Your task to perform on an android device: delete a single message in the gmail app Image 0: 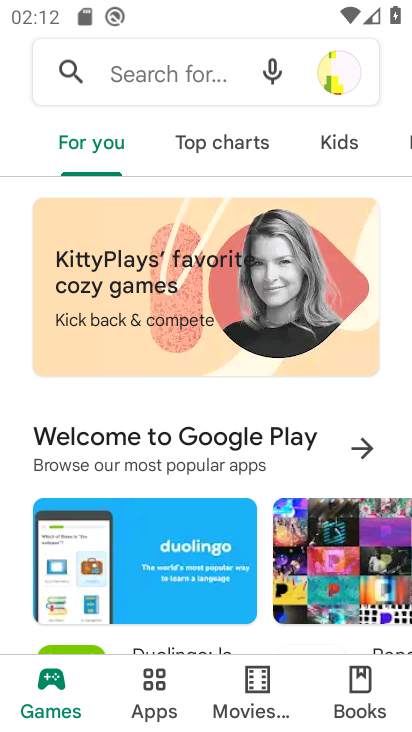
Step 0: press home button
Your task to perform on an android device: delete a single message in the gmail app Image 1: 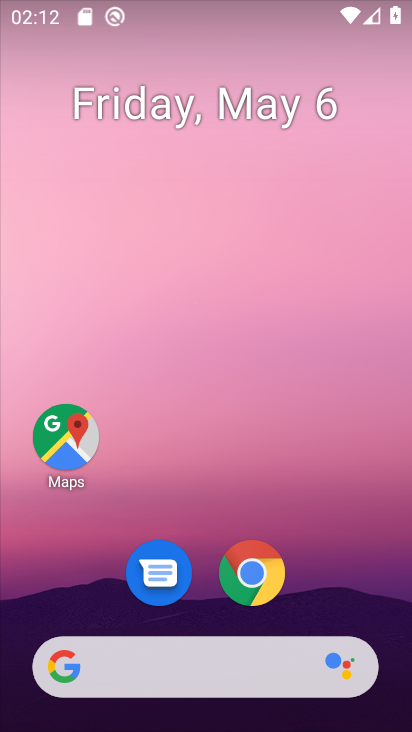
Step 1: drag from (323, 603) to (350, 217)
Your task to perform on an android device: delete a single message in the gmail app Image 2: 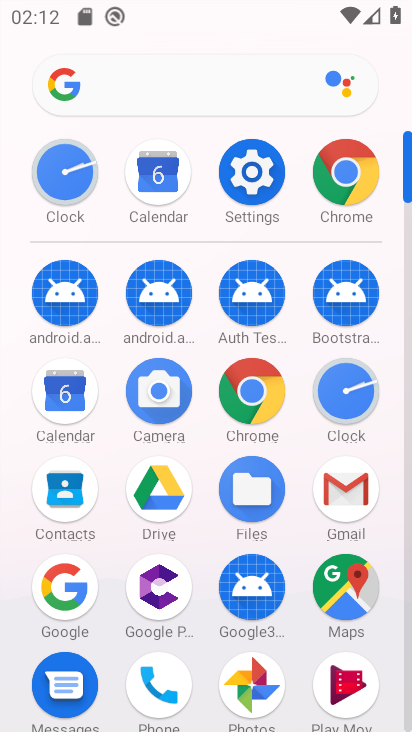
Step 2: click (334, 485)
Your task to perform on an android device: delete a single message in the gmail app Image 3: 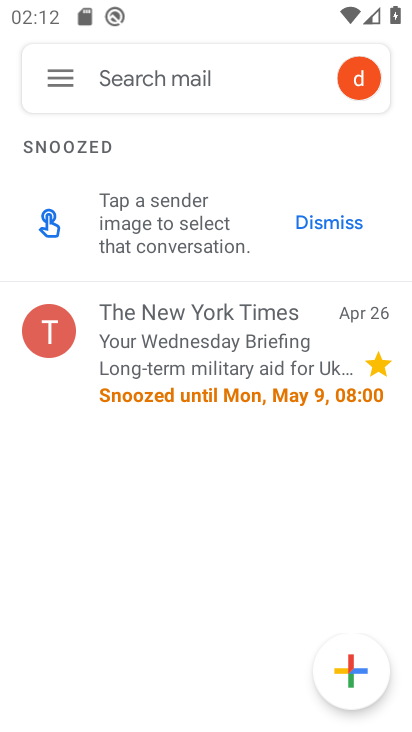
Step 3: click (50, 80)
Your task to perform on an android device: delete a single message in the gmail app Image 4: 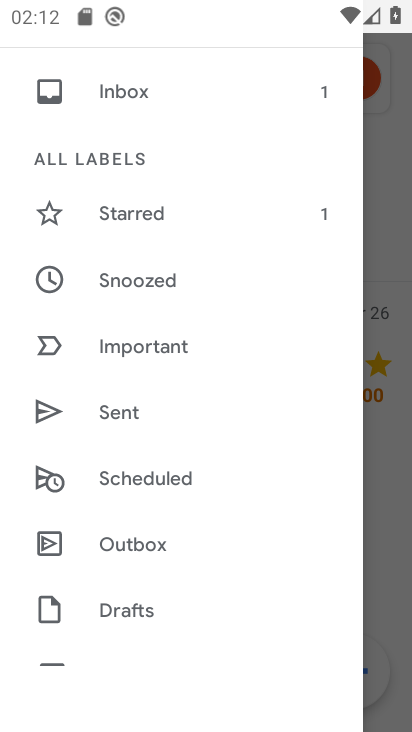
Step 4: drag from (158, 400) to (208, 154)
Your task to perform on an android device: delete a single message in the gmail app Image 5: 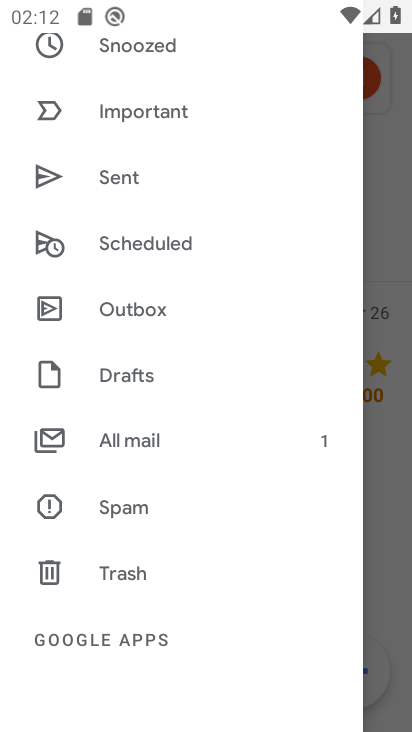
Step 5: click (136, 445)
Your task to perform on an android device: delete a single message in the gmail app Image 6: 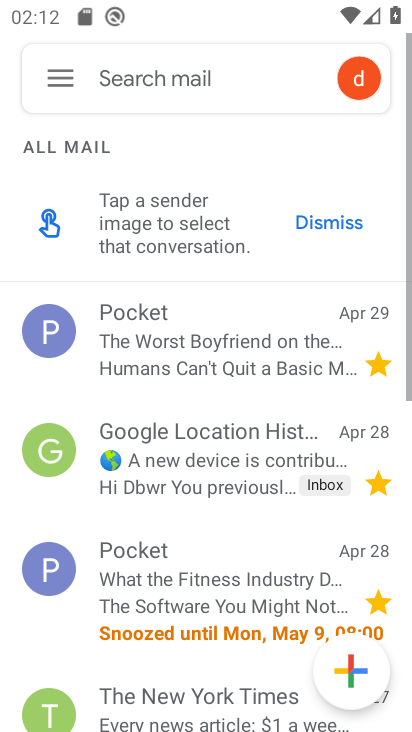
Step 6: click (126, 353)
Your task to perform on an android device: delete a single message in the gmail app Image 7: 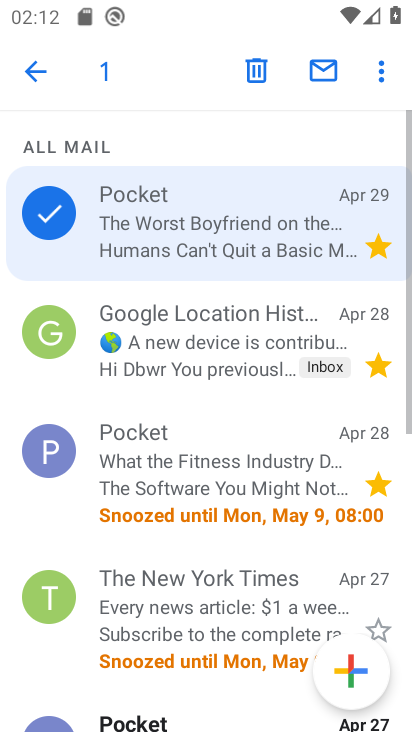
Step 7: click (265, 75)
Your task to perform on an android device: delete a single message in the gmail app Image 8: 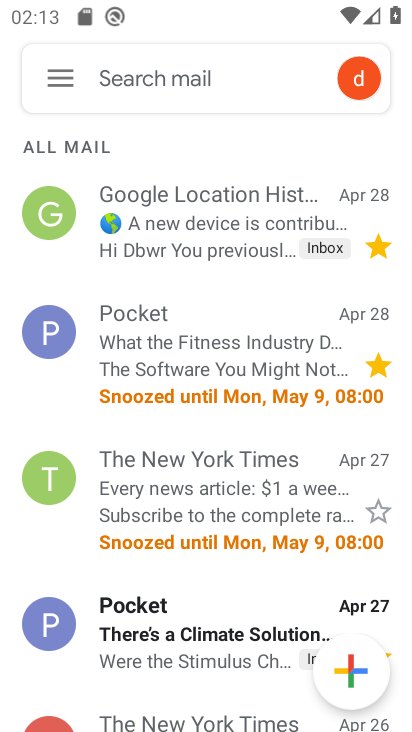
Step 8: task complete